Your task to perform on an android device: toggle sleep mode Image 0: 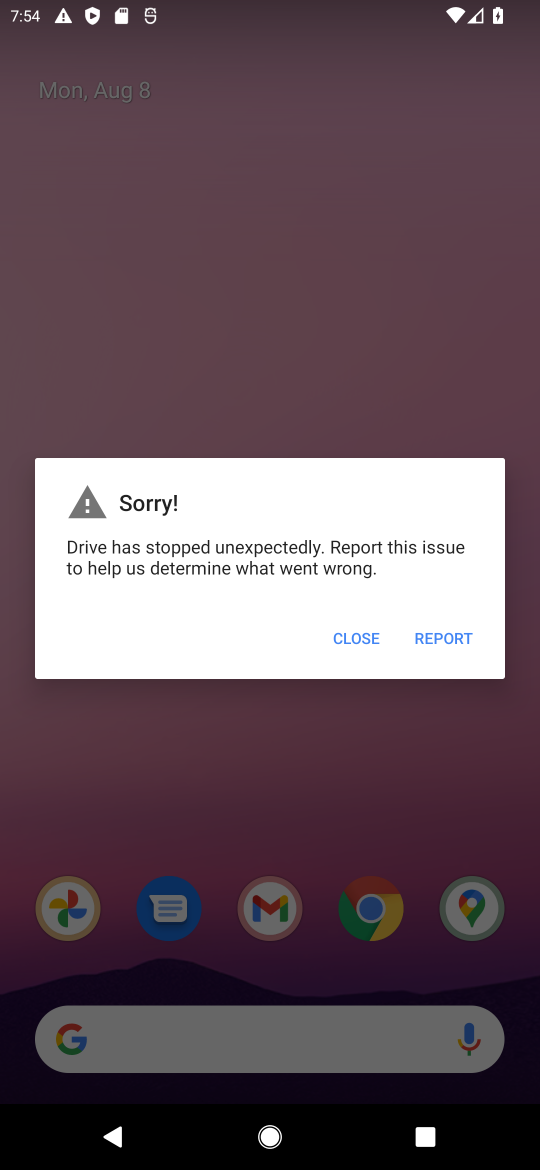
Step 0: click (338, 632)
Your task to perform on an android device: toggle sleep mode Image 1: 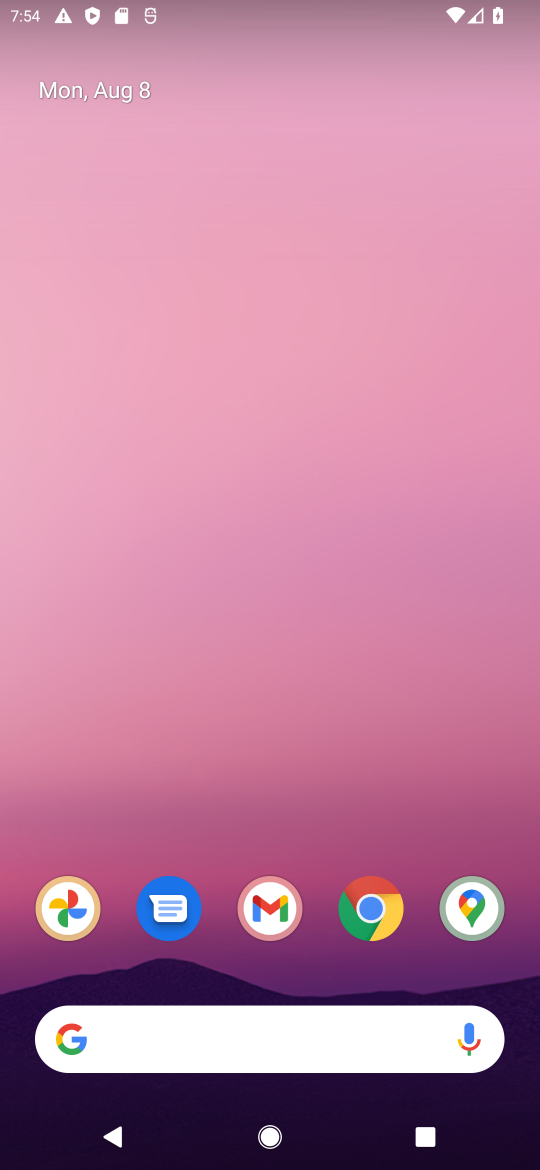
Step 1: drag from (216, 603) to (490, 3)
Your task to perform on an android device: toggle sleep mode Image 2: 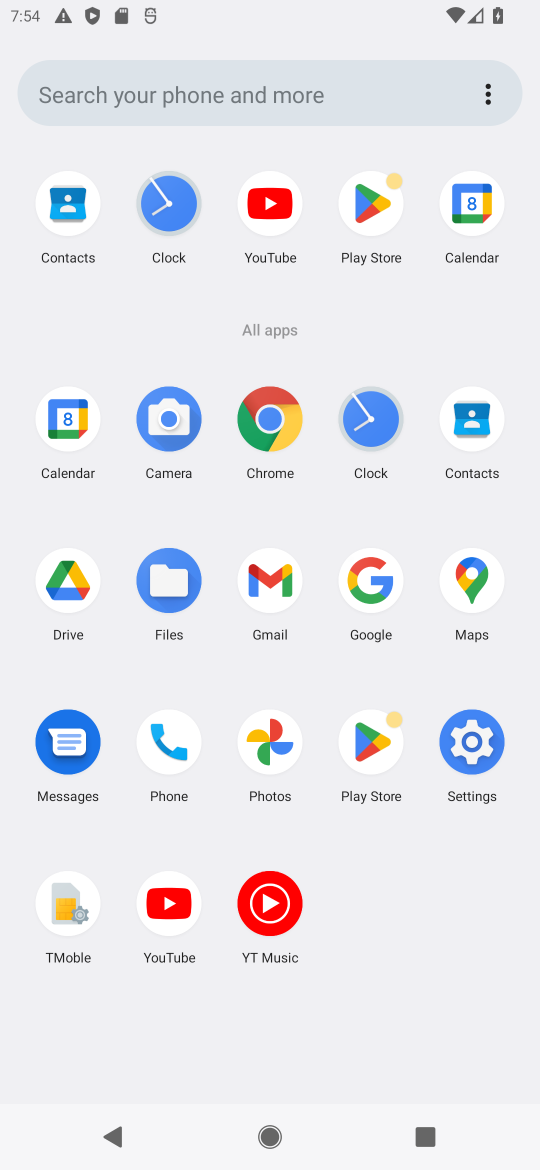
Step 2: click (458, 726)
Your task to perform on an android device: toggle sleep mode Image 3: 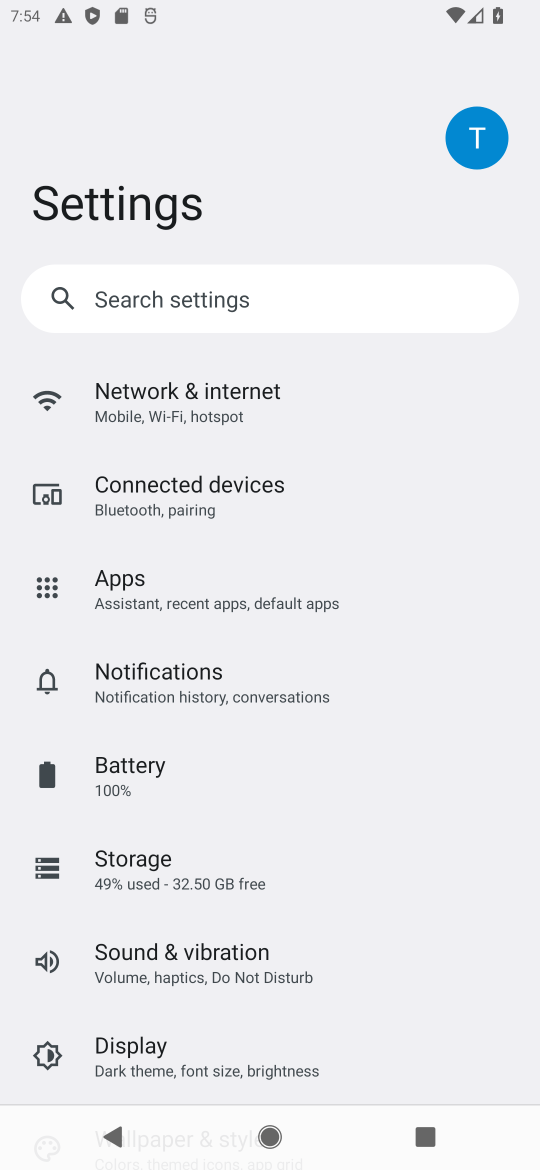
Step 3: click (207, 324)
Your task to perform on an android device: toggle sleep mode Image 4: 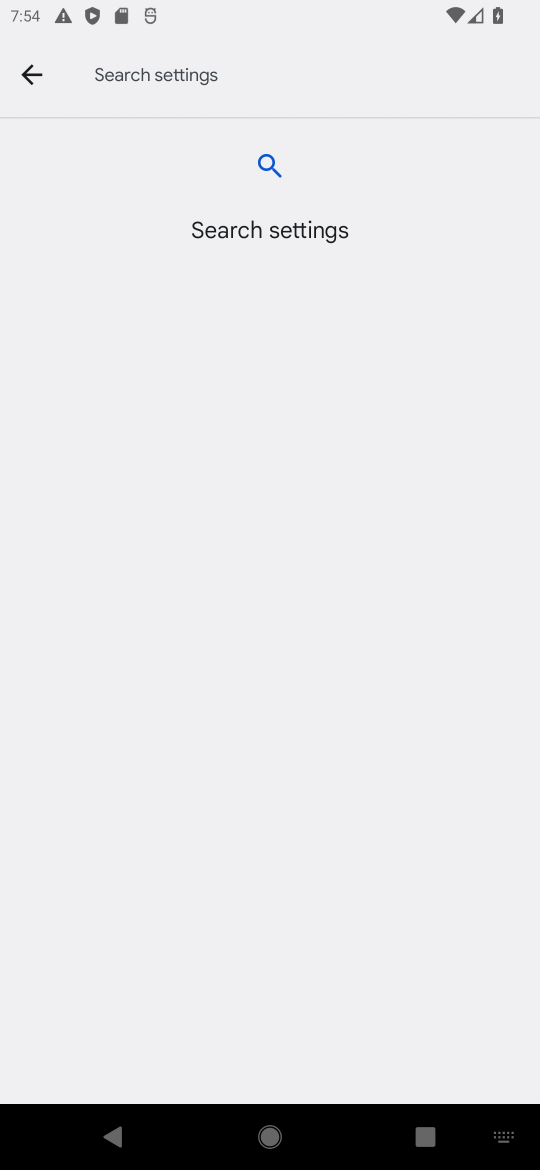
Step 4: type "sleep mode"
Your task to perform on an android device: toggle sleep mode Image 5: 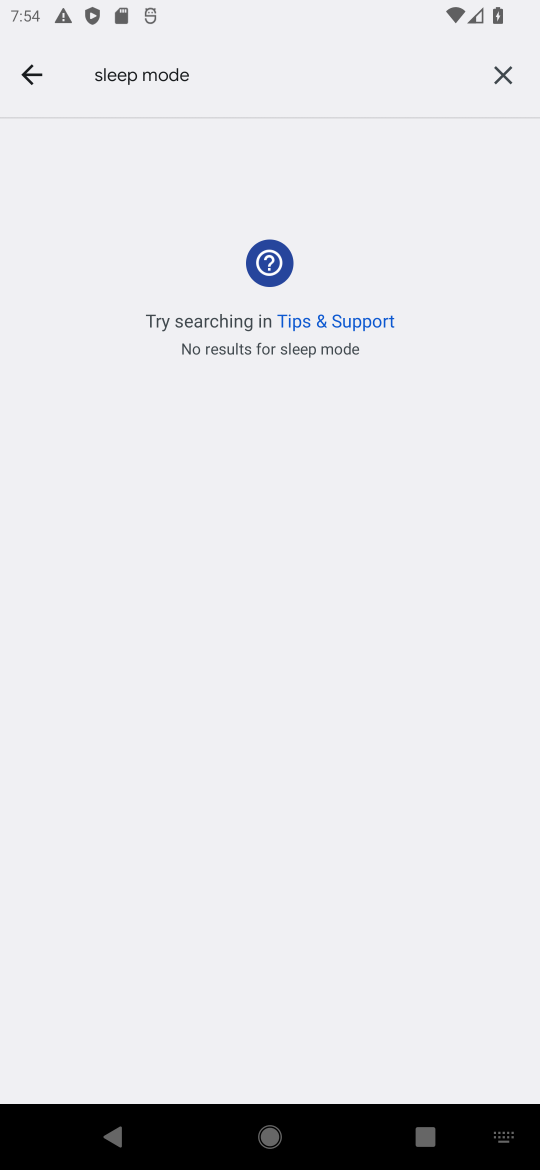
Step 5: task complete